Your task to perform on an android device: check out phone information Image 0: 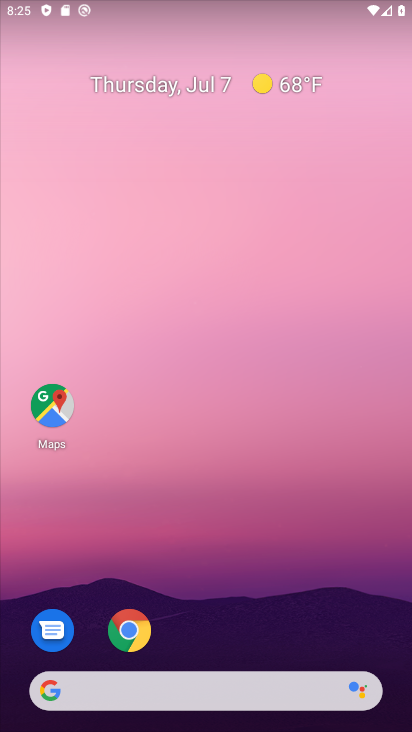
Step 0: drag from (249, 628) to (235, 245)
Your task to perform on an android device: check out phone information Image 1: 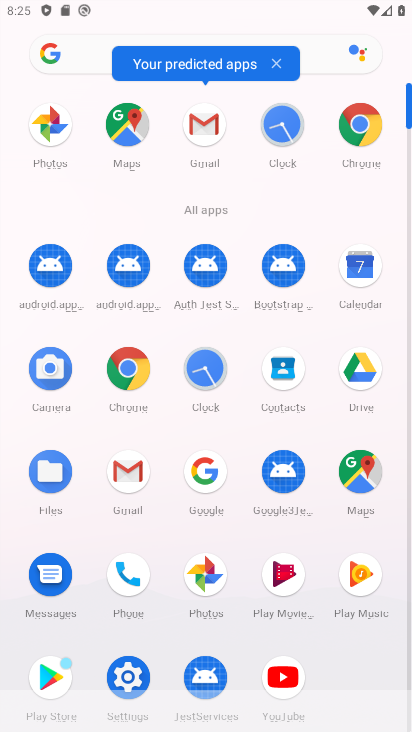
Step 1: click (132, 675)
Your task to perform on an android device: check out phone information Image 2: 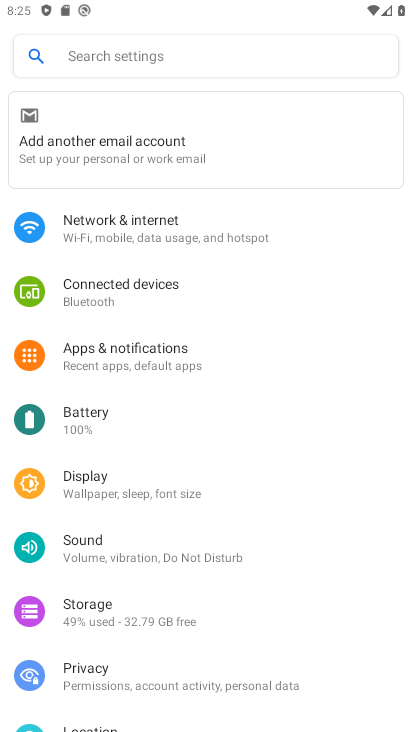
Step 2: drag from (114, 521) to (188, 417)
Your task to perform on an android device: check out phone information Image 3: 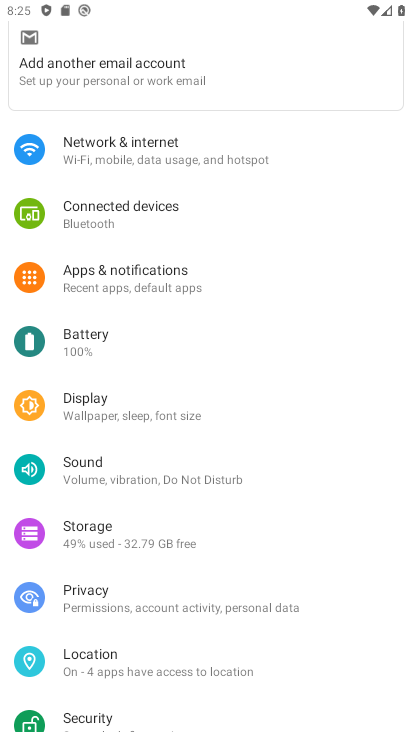
Step 3: drag from (100, 622) to (211, 492)
Your task to perform on an android device: check out phone information Image 4: 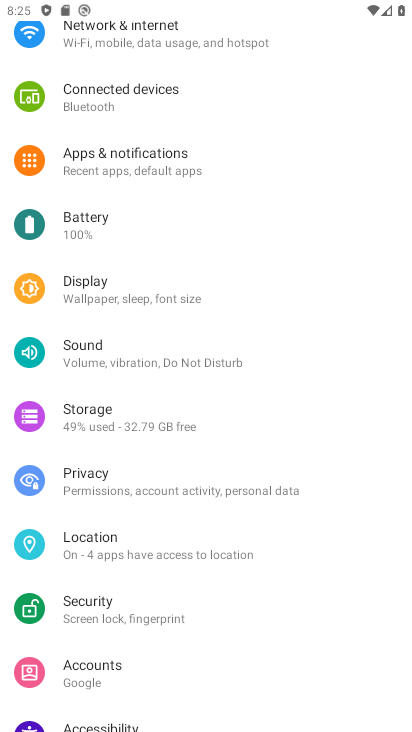
Step 4: drag from (99, 639) to (251, 481)
Your task to perform on an android device: check out phone information Image 5: 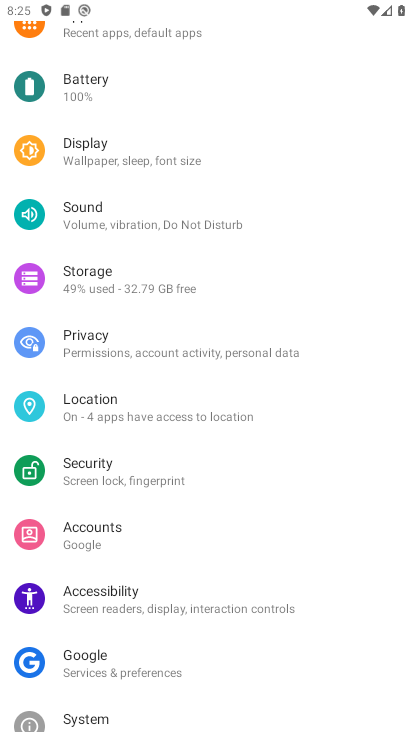
Step 5: drag from (109, 630) to (234, 491)
Your task to perform on an android device: check out phone information Image 6: 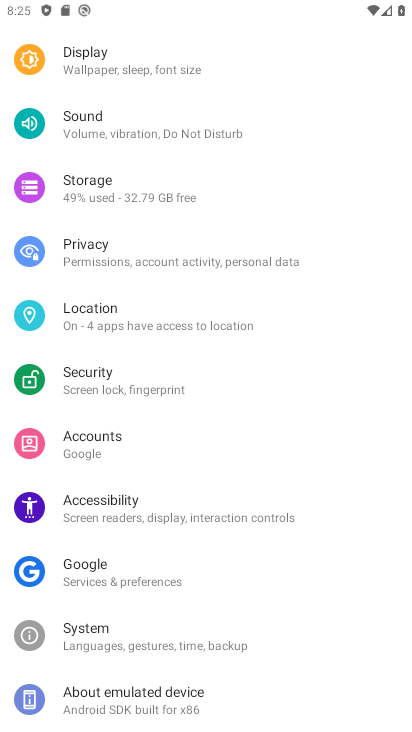
Step 6: click (100, 687)
Your task to perform on an android device: check out phone information Image 7: 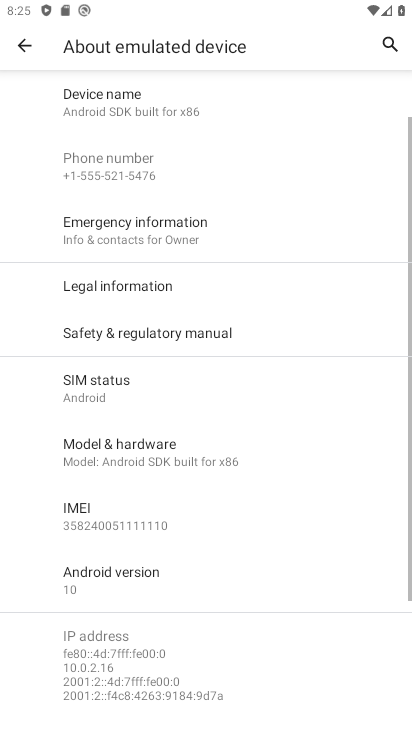
Step 7: task complete